Your task to perform on an android device: Go to sound settings Image 0: 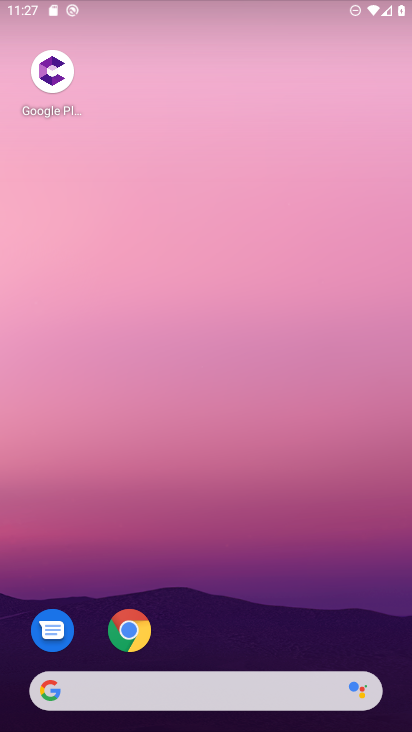
Step 0: drag from (294, 557) to (287, 1)
Your task to perform on an android device: Go to sound settings Image 1: 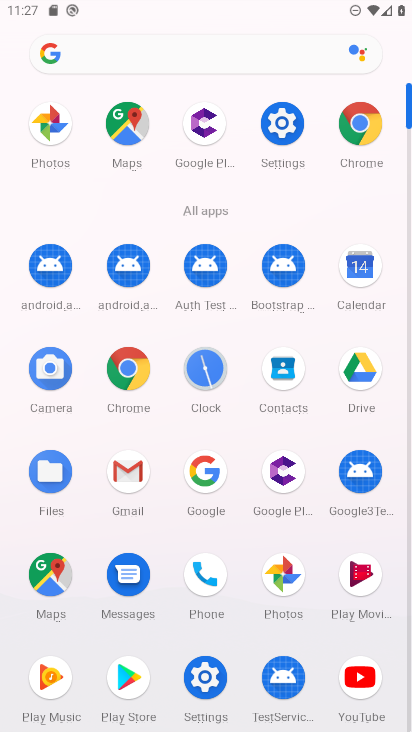
Step 1: click (282, 131)
Your task to perform on an android device: Go to sound settings Image 2: 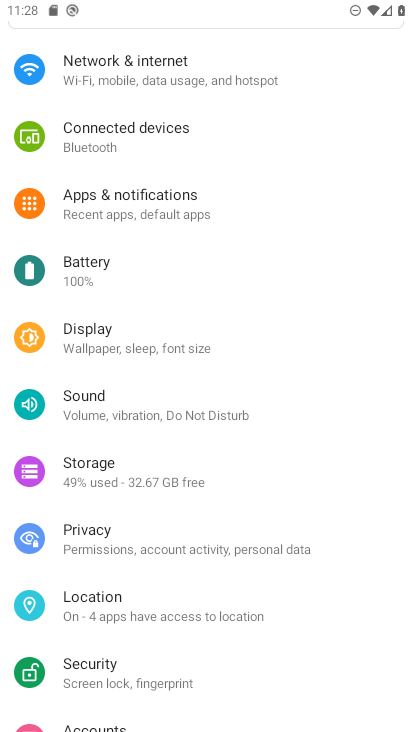
Step 2: click (128, 408)
Your task to perform on an android device: Go to sound settings Image 3: 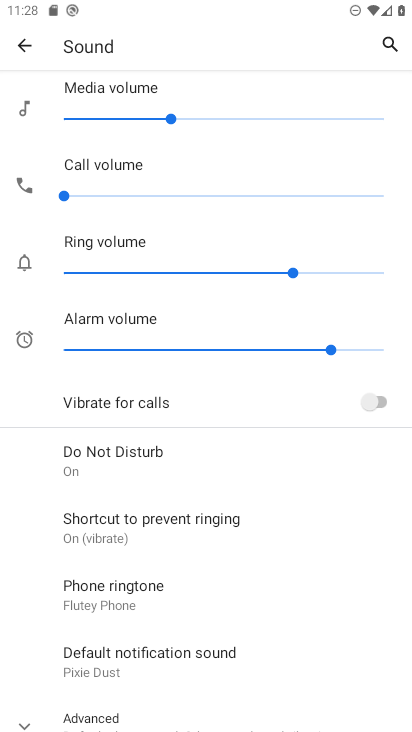
Step 3: task complete